Your task to perform on an android device: What's the news in the Bahamas? Image 0: 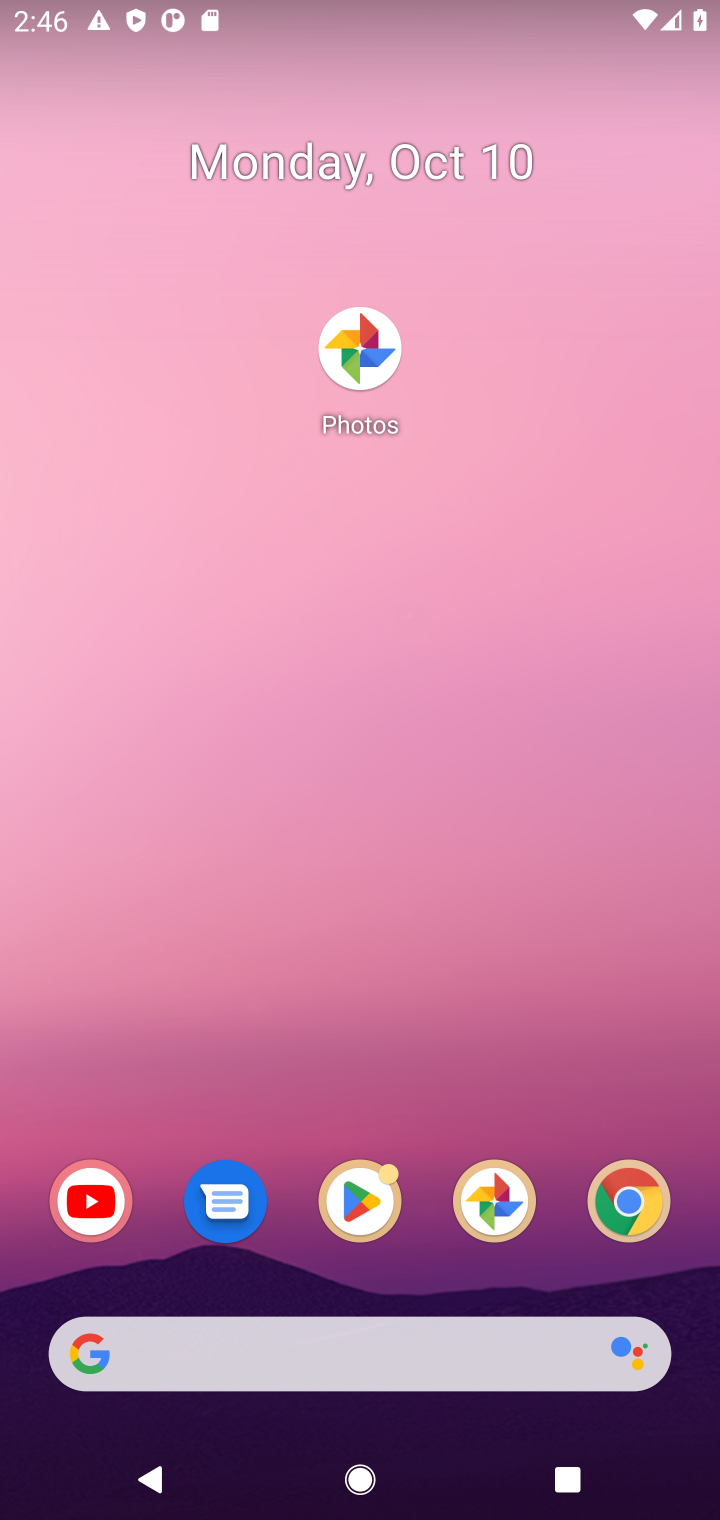
Step 0: click (318, 1337)
Your task to perform on an android device: What's the news in the Bahamas? Image 1: 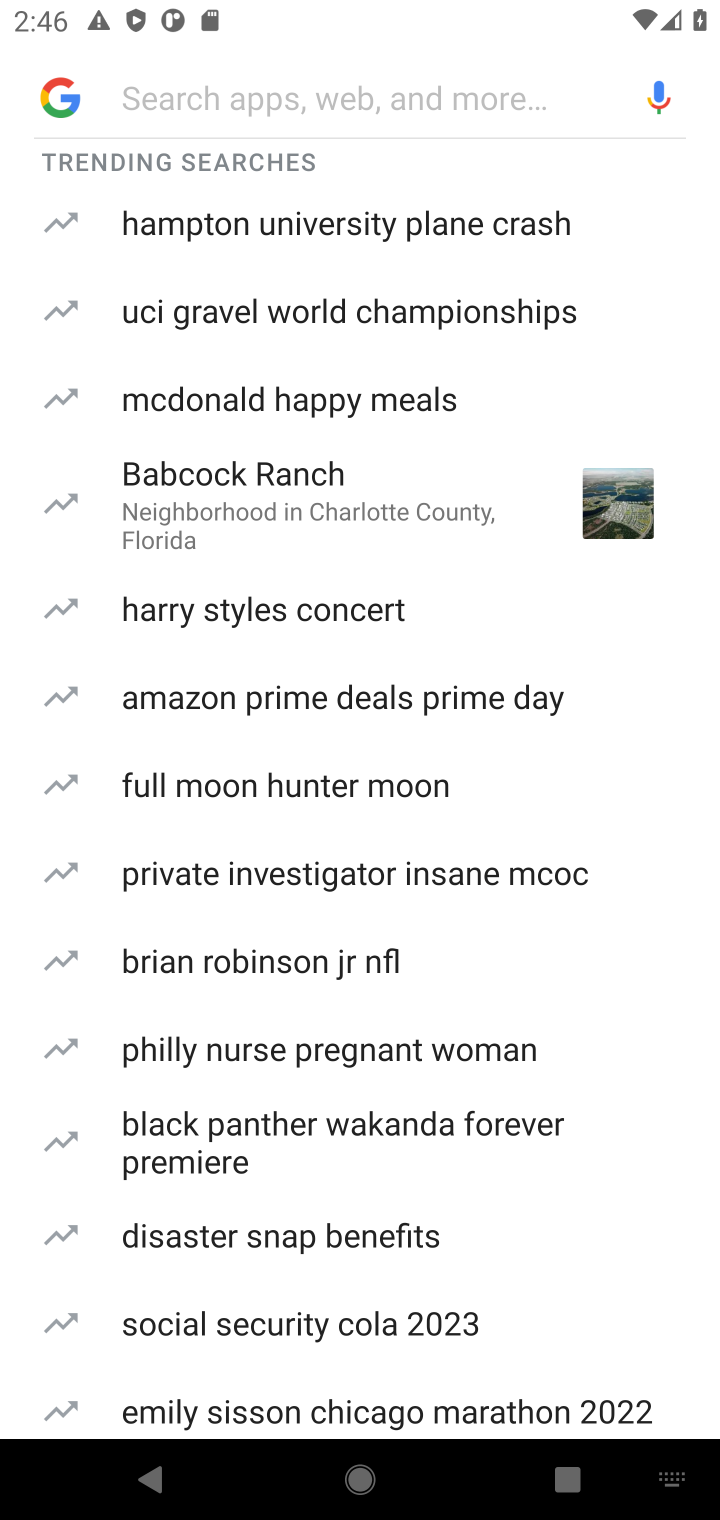
Step 1: type "news in the Bahamas"
Your task to perform on an android device: What's the news in the Bahamas? Image 2: 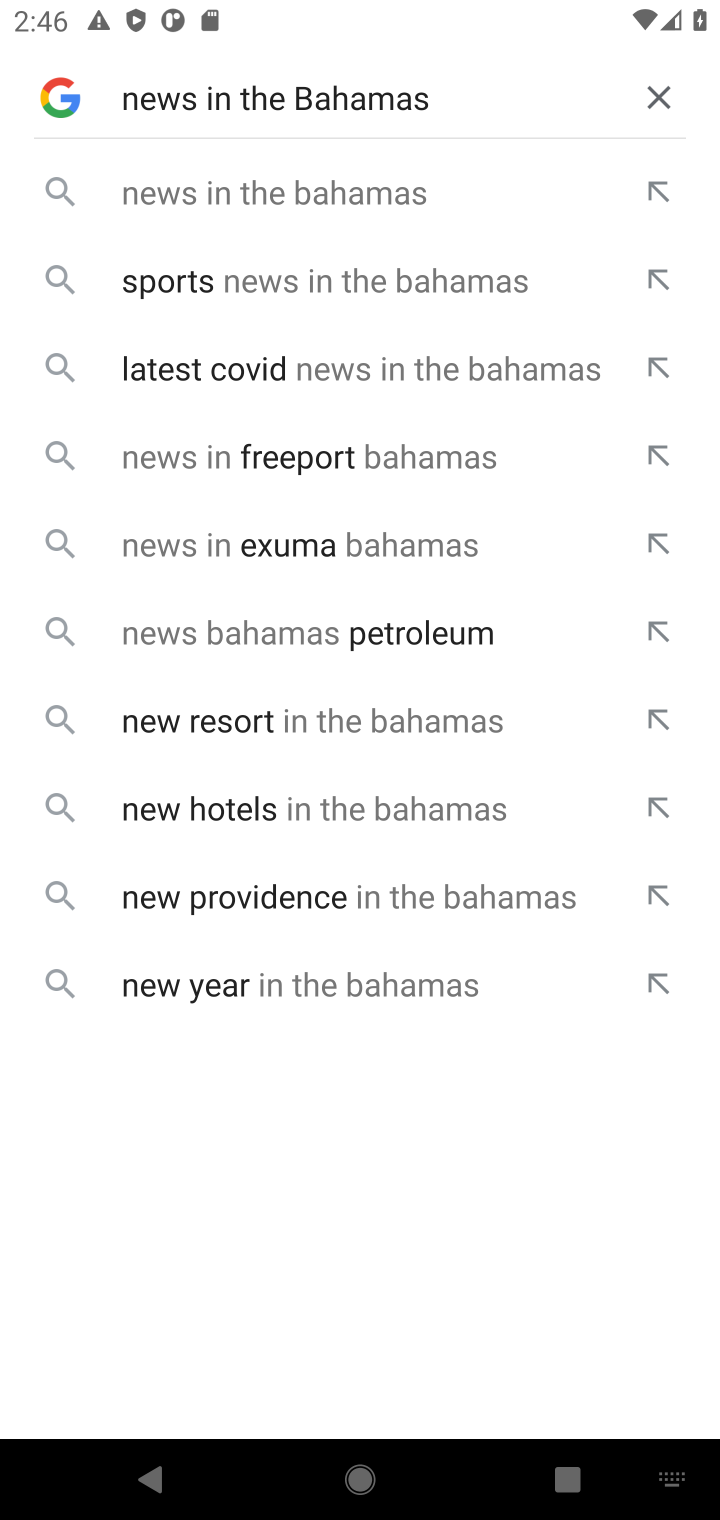
Step 2: type ""
Your task to perform on an android device: What's the news in the Bahamas? Image 3: 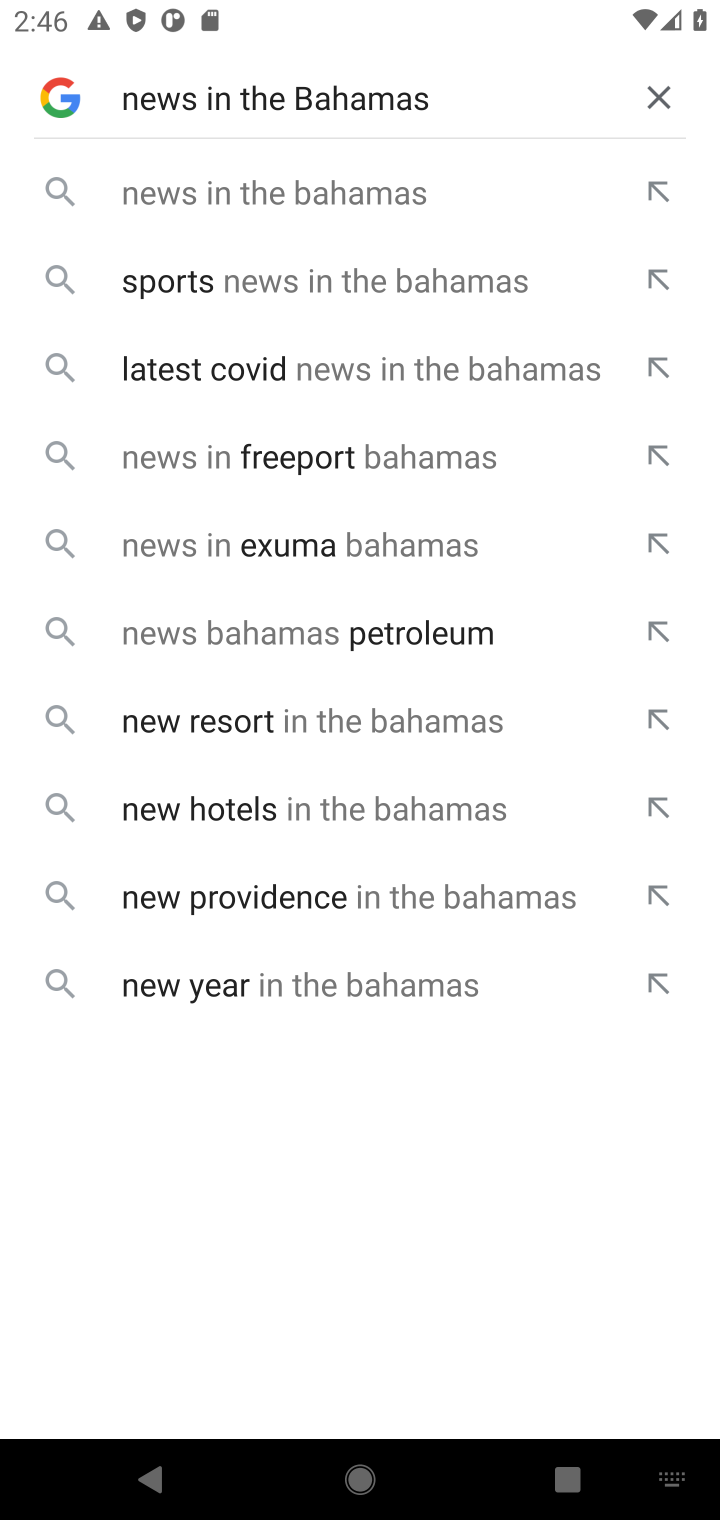
Step 3: click (354, 195)
Your task to perform on an android device: What's the news in the Bahamas? Image 4: 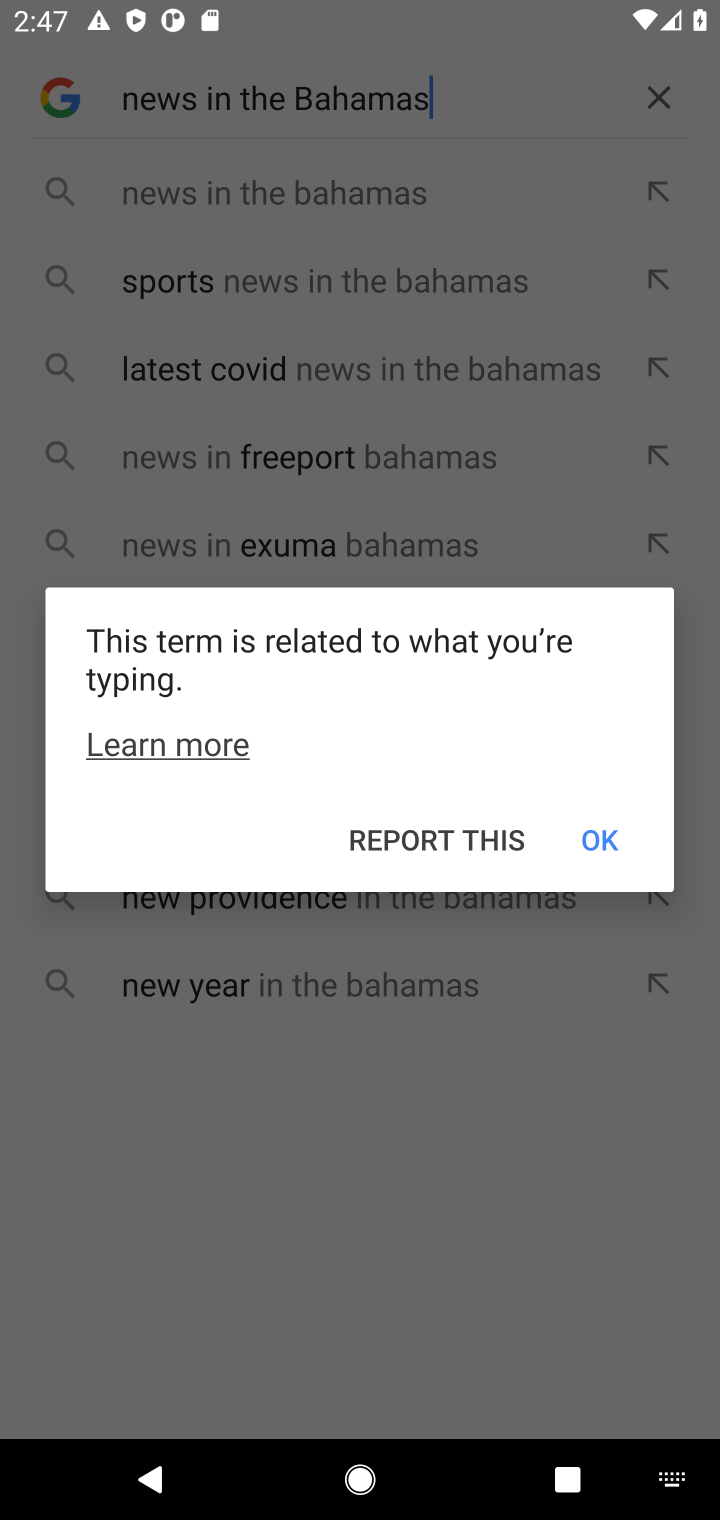
Step 4: click (585, 823)
Your task to perform on an android device: What's the news in the Bahamas? Image 5: 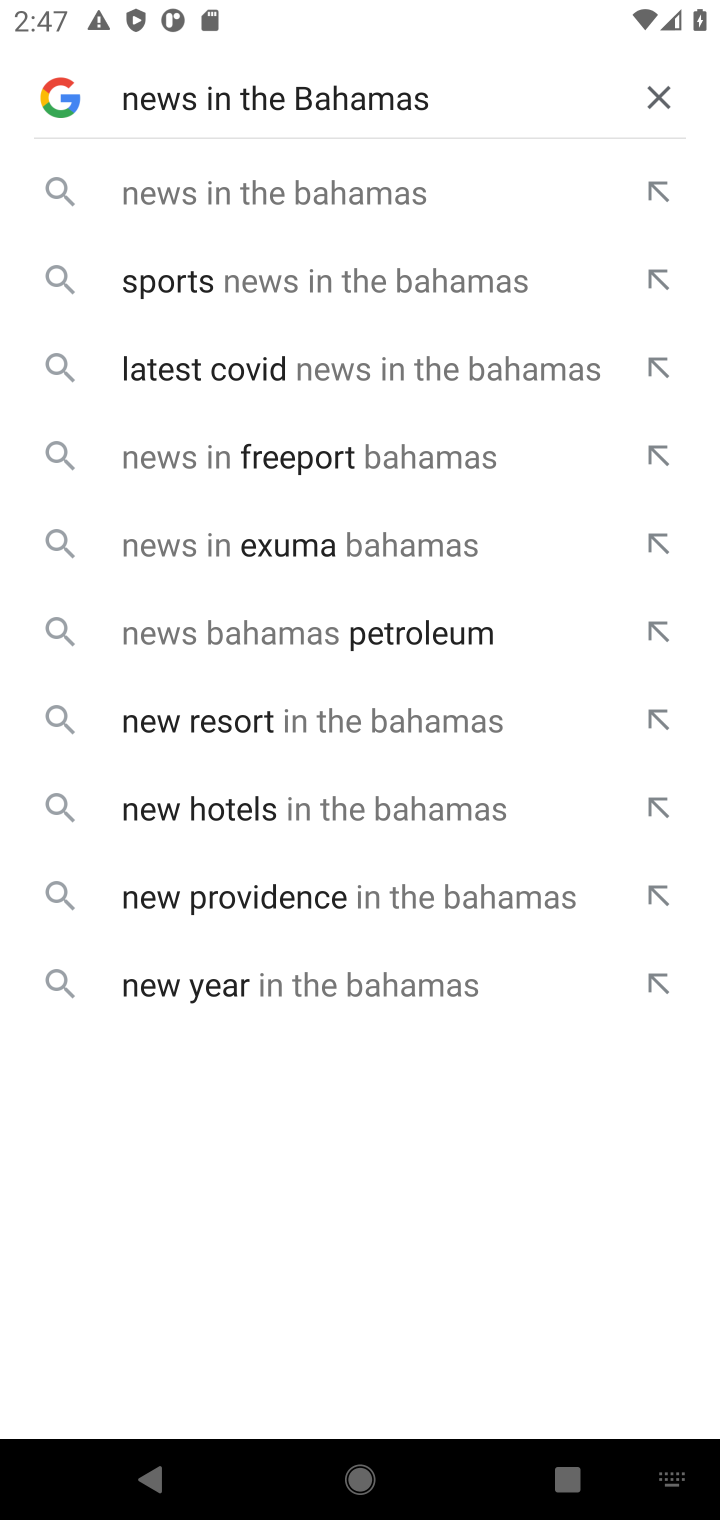
Step 5: click (323, 221)
Your task to perform on an android device: What's the news in the Bahamas? Image 6: 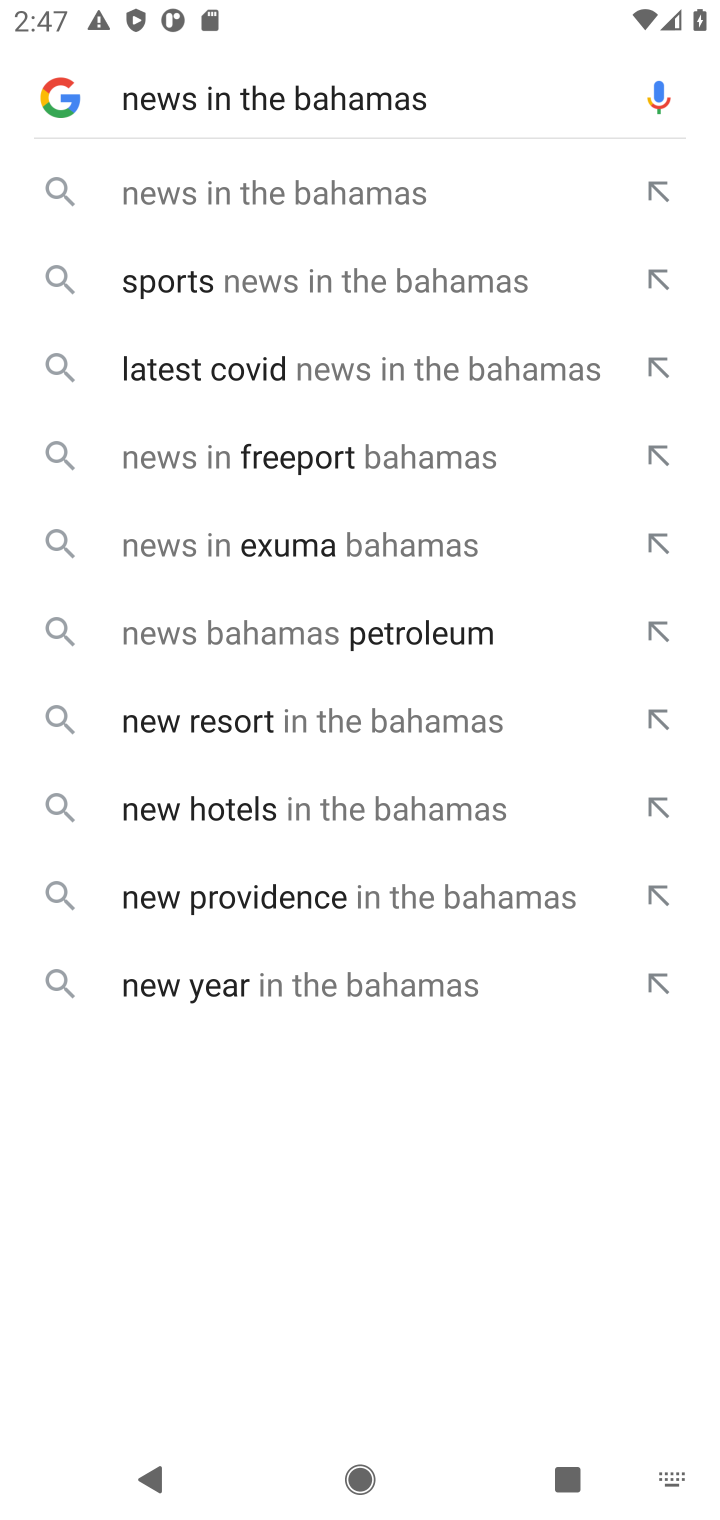
Step 6: click (296, 258)
Your task to perform on an android device: What's the news in the Bahamas? Image 7: 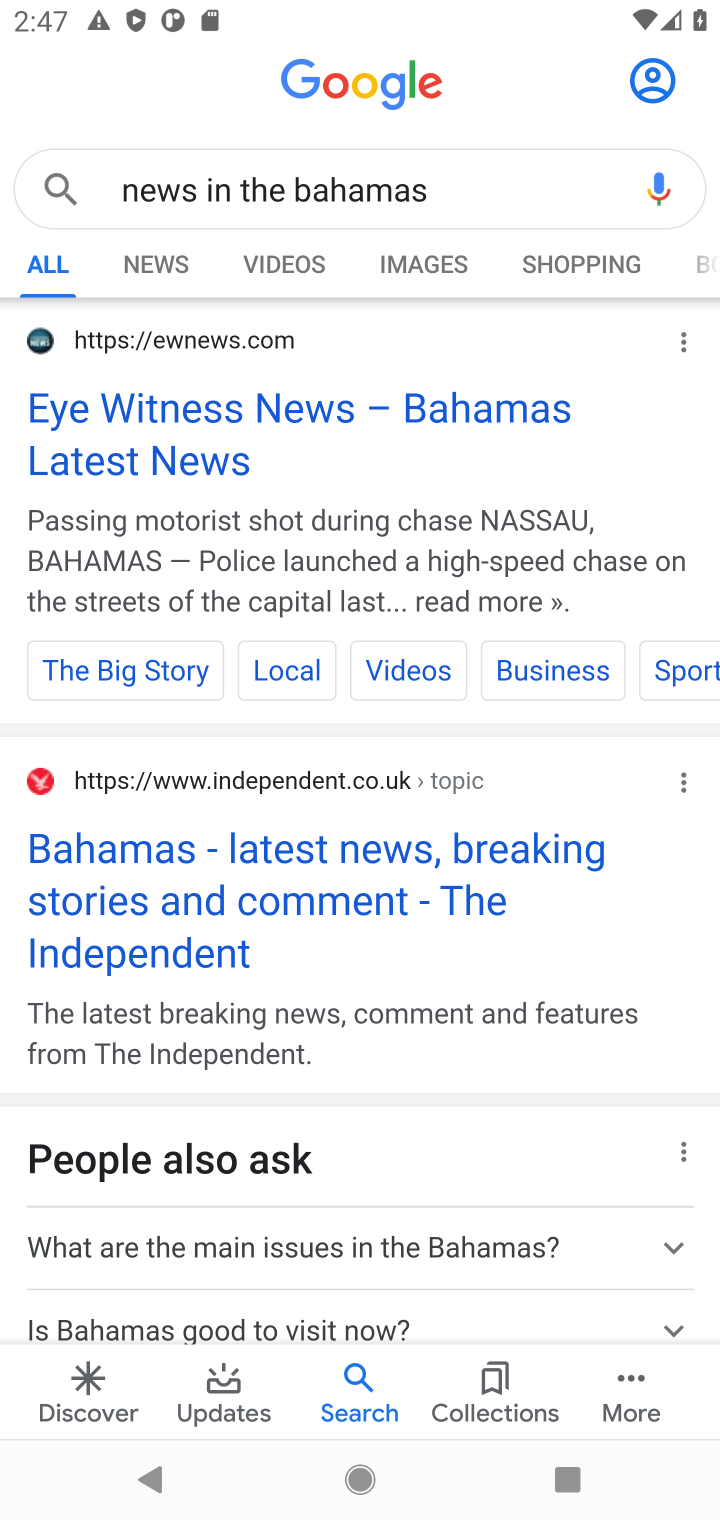
Step 7: click (204, 896)
Your task to perform on an android device: What's the news in the Bahamas? Image 8: 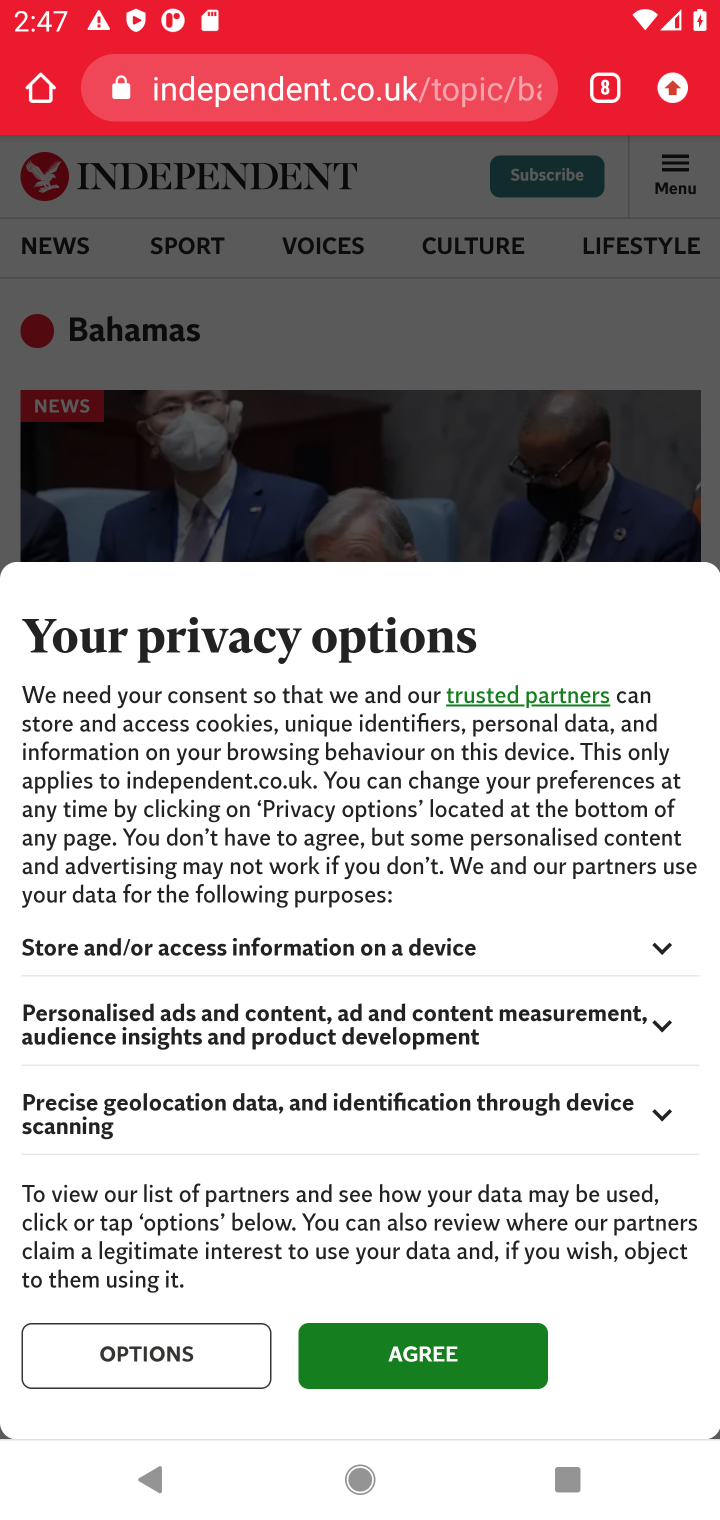
Step 8: click (366, 1359)
Your task to perform on an android device: What's the news in the Bahamas? Image 9: 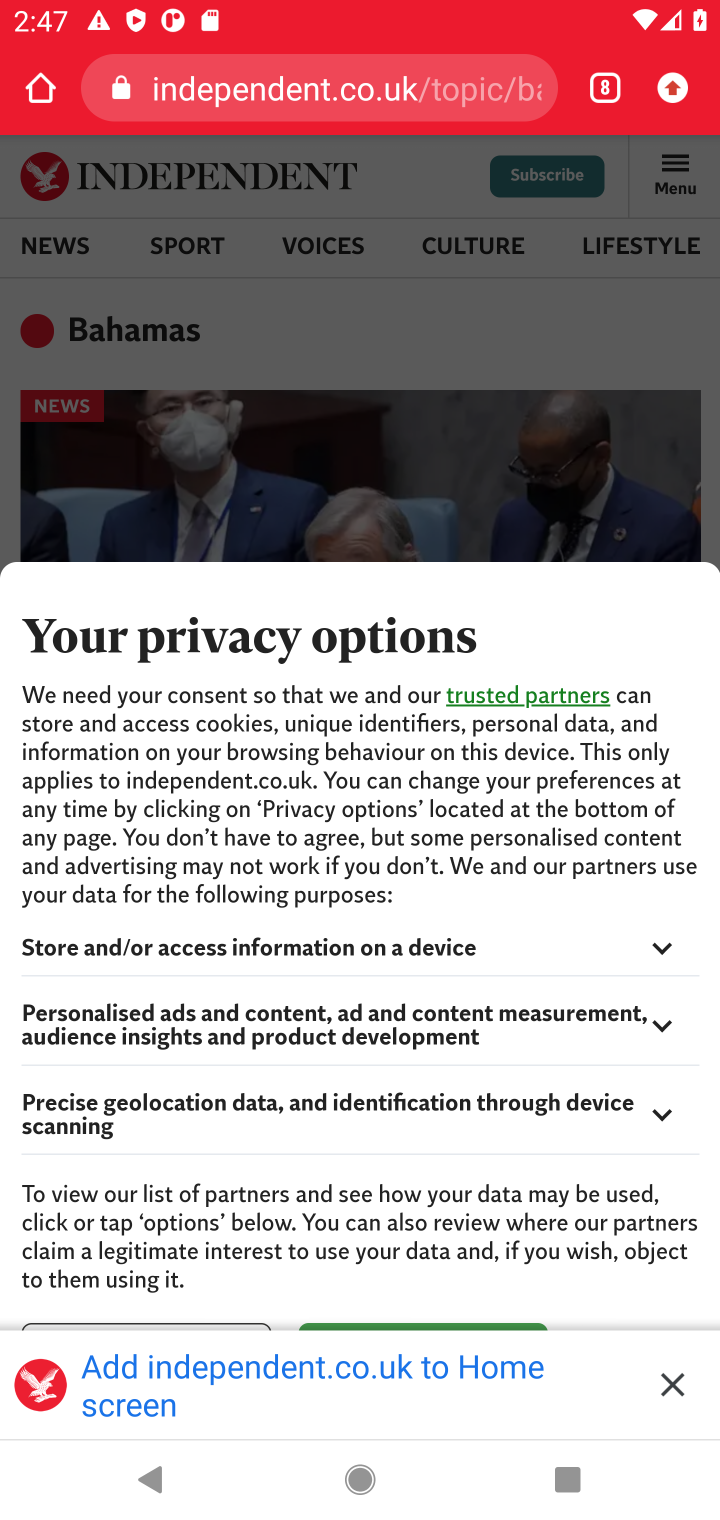
Step 9: drag from (421, 1008) to (483, 737)
Your task to perform on an android device: What's the news in the Bahamas? Image 10: 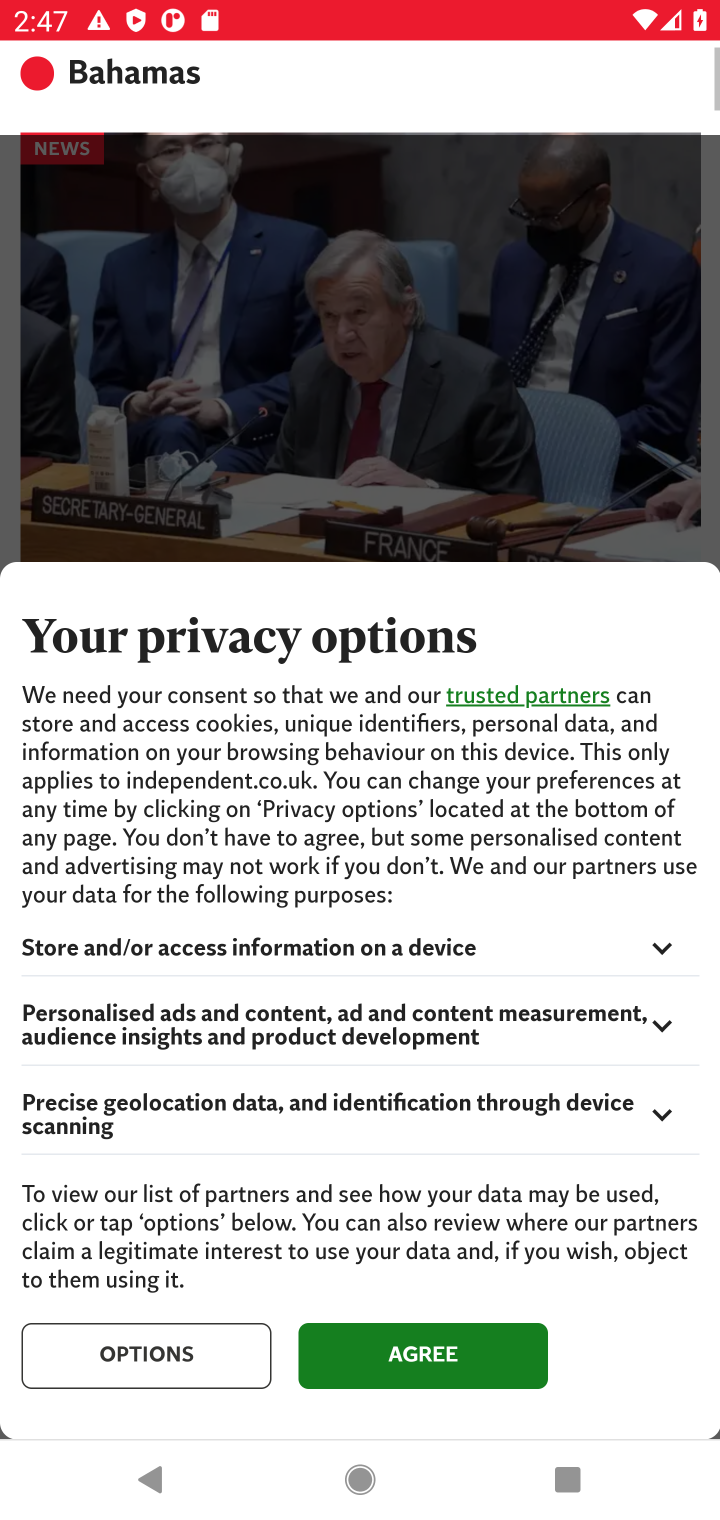
Step 10: click (494, 1341)
Your task to perform on an android device: What's the news in the Bahamas? Image 11: 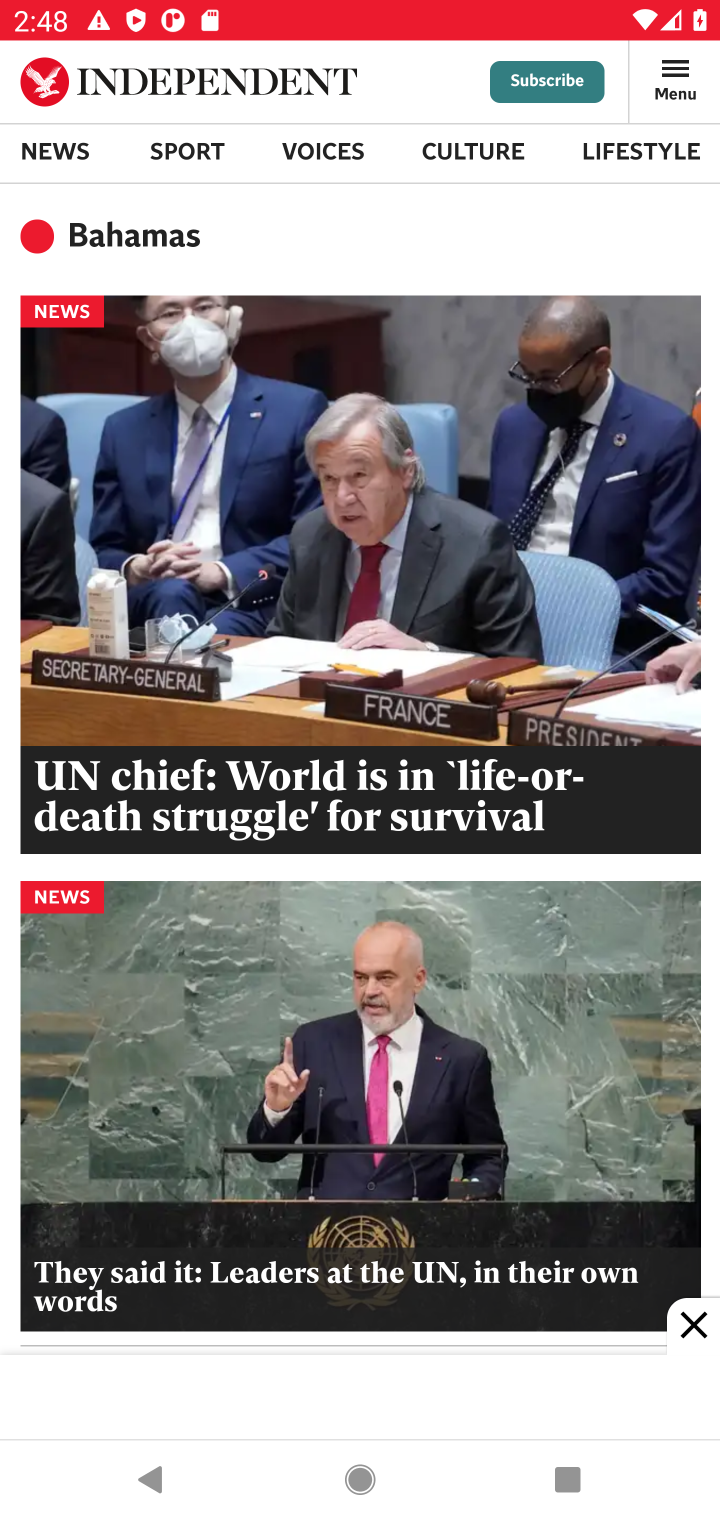
Step 11: task complete